Your task to perform on an android device: Open Google Maps Image 0: 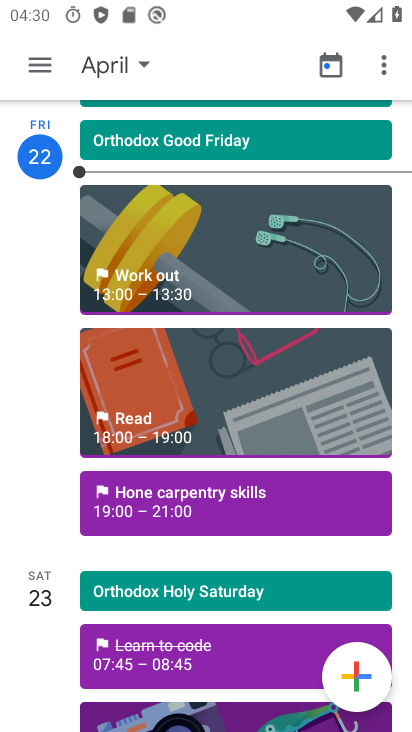
Step 0: press home button
Your task to perform on an android device: Open Google Maps Image 1: 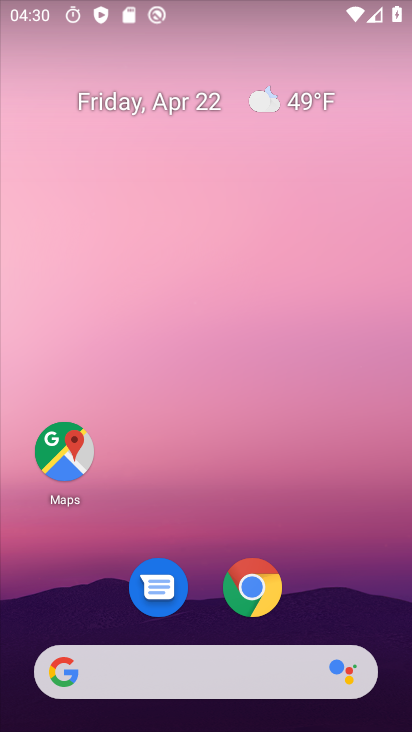
Step 1: click (61, 443)
Your task to perform on an android device: Open Google Maps Image 2: 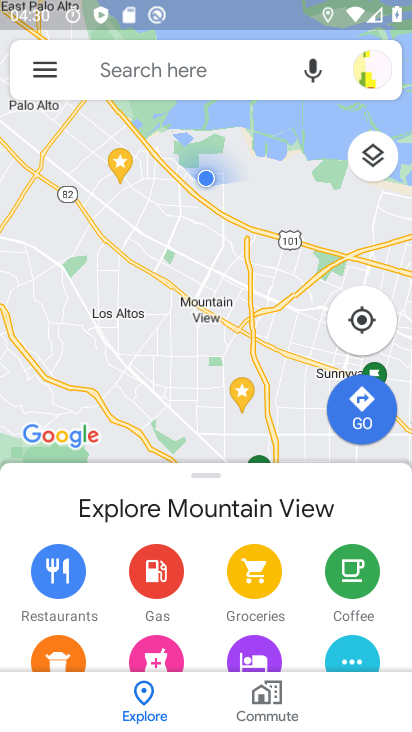
Step 2: task complete